Your task to perform on an android device: turn off smart reply in the gmail app Image 0: 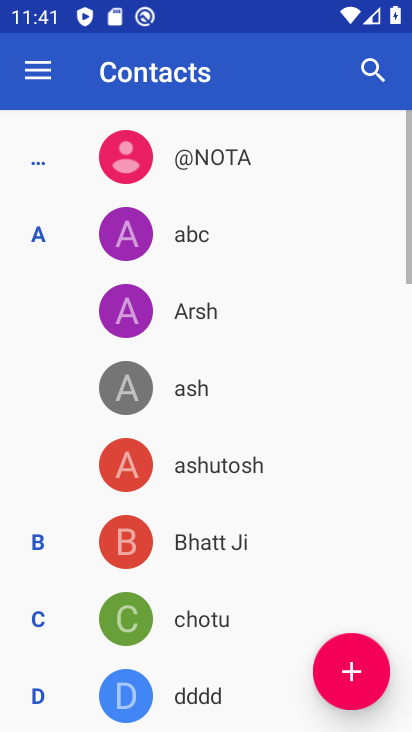
Step 0: press home button
Your task to perform on an android device: turn off smart reply in the gmail app Image 1: 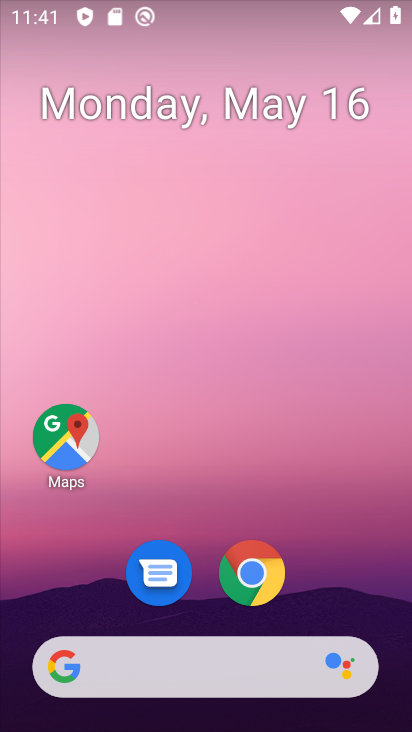
Step 1: drag from (183, 632) to (175, 94)
Your task to perform on an android device: turn off smart reply in the gmail app Image 2: 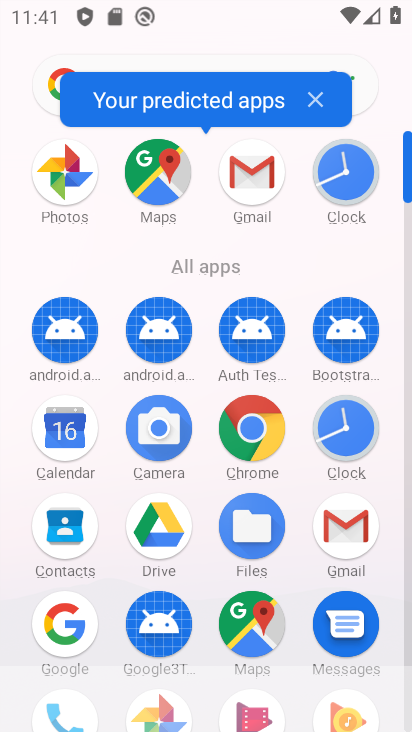
Step 2: click (335, 514)
Your task to perform on an android device: turn off smart reply in the gmail app Image 3: 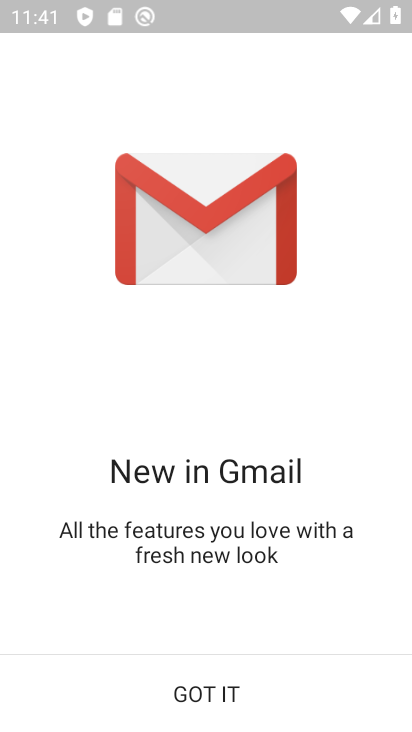
Step 3: click (250, 671)
Your task to perform on an android device: turn off smart reply in the gmail app Image 4: 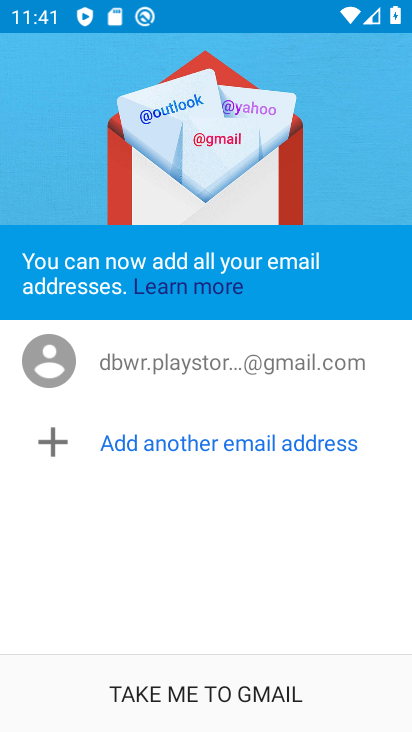
Step 4: click (247, 688)
Your task to perform on an android device: turn off smart reply in the gmail app Image 5: 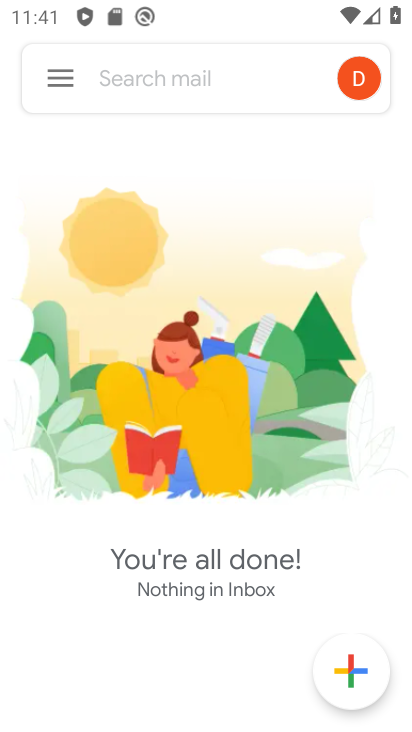
Step 5: click (61, 62)
Your task to perform on an android device: turn off smart reply in the gmail app Image 6: 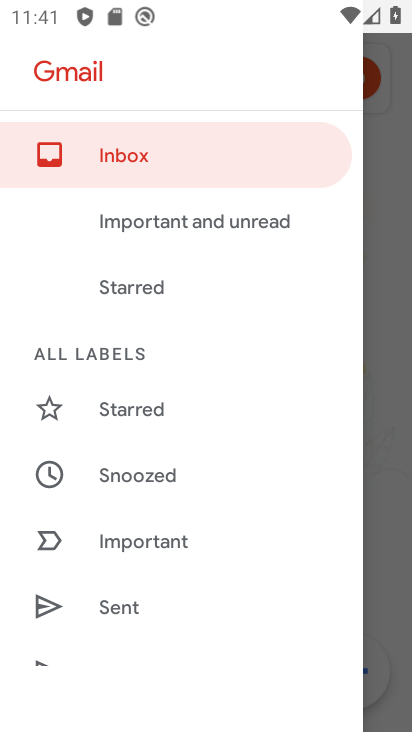
Step 6: drag from (71, 595) to (133, 150)
Your task to perform on an android device: turn off smart reply in the gmail app Image 7: 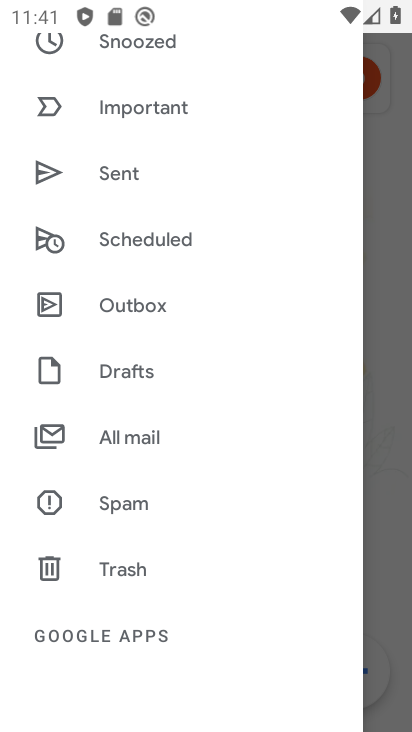
Step 7: drag from (110, 630) to (127, 115)
Your task to perform on an android device: turn off smart reply in the gmail app Image 8: 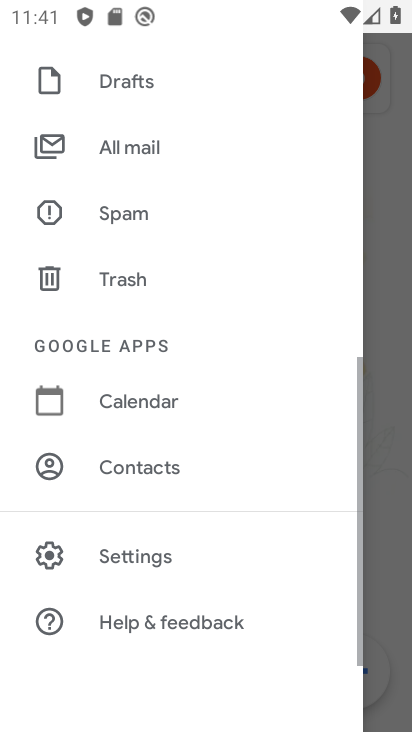
Step 8: click (128, 570)
Your task to perform on an android device: turn off smart reply in the gmail app Image 9: 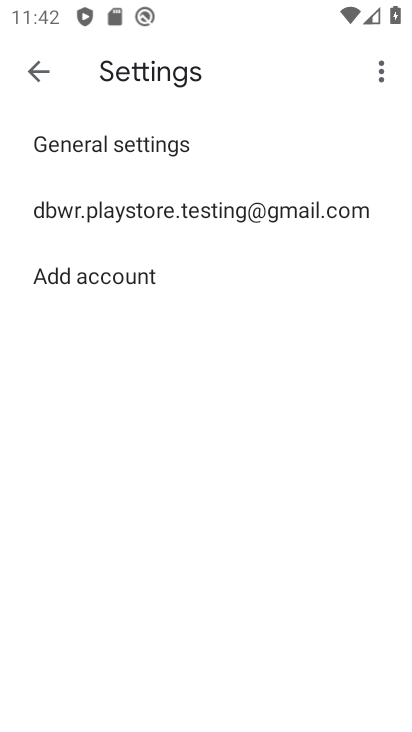
Step 9: click (165, 205)
Your task to perform on an android device: turn off smart reply in the gmail app Image 10: 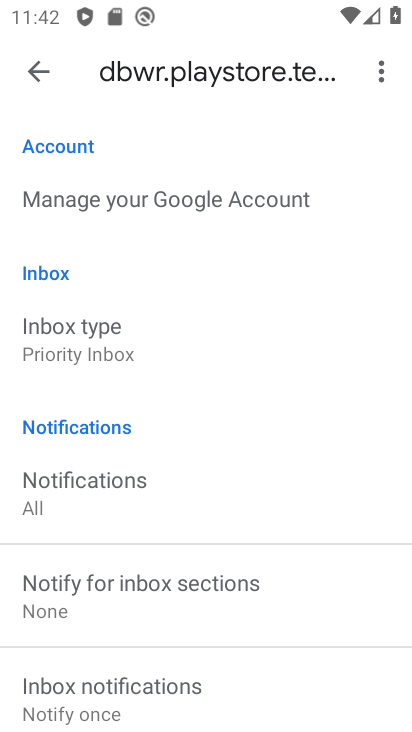
Step 10: drag from (104, 552) to (123, 208)
Your task to perform on an android device: turn off smart reply in the gmail app Image 11: 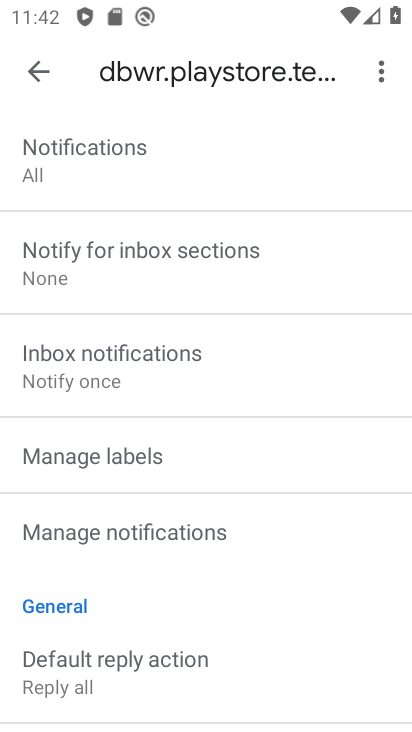
Step 11: drag from (163, 587) to (191, 245)
Your task to perform on an android device: turn off smart reply in the gmail app Image 12: 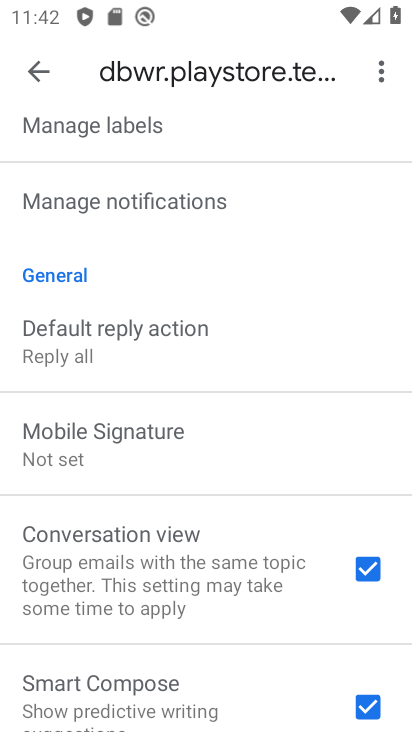
Step 12: drag from (149, 498) to (158, 44)
Your task to perform on an android device: turn off smart reply in the gmail app Image 13: 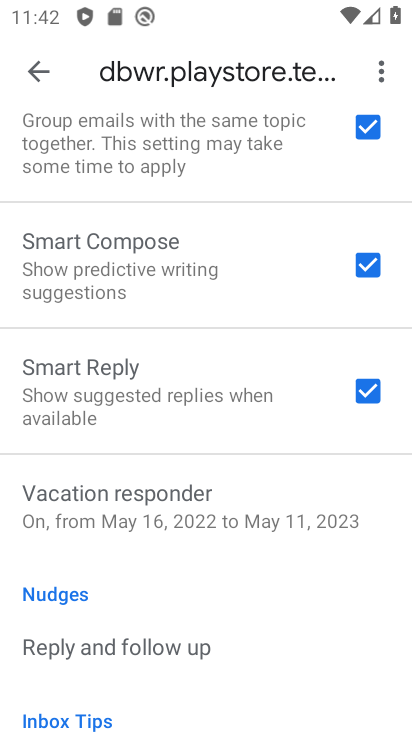
Step 13: click (376, 395)
Your task to perform on an android device: turn off smart reply in the gmail app Image 14: 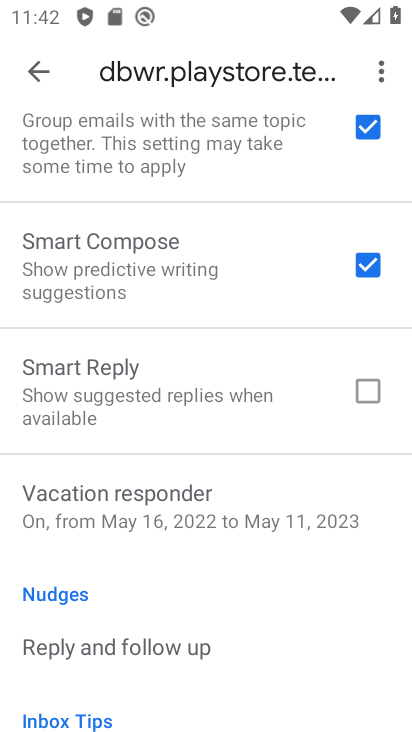
Step 14: task complete